Your task to perform on an android device: find which apps use the phone's location Image 0: 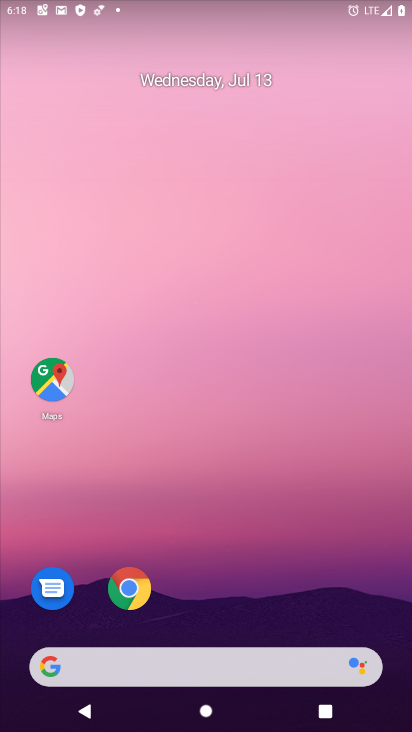
Step 0: drag from (199, 557) to (251, 26)
Your task to perform on an android device: find which apps use the phone's location Image 1: 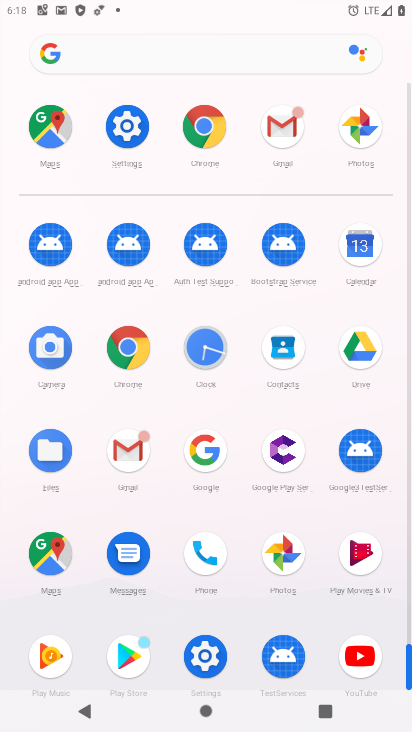
Step 1: click (127, 122)
Your task to perform on an android device: find which apps use the phone's location Image 2: 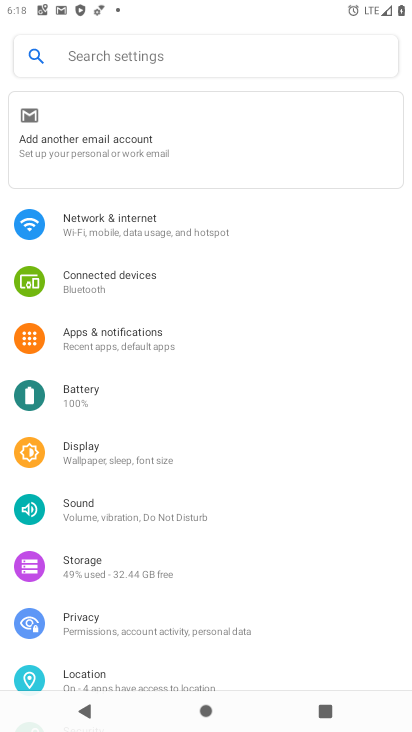
Step 2: click (80, 675)
Your task to perform on an android device: find which apps use the phone's location Image 3: 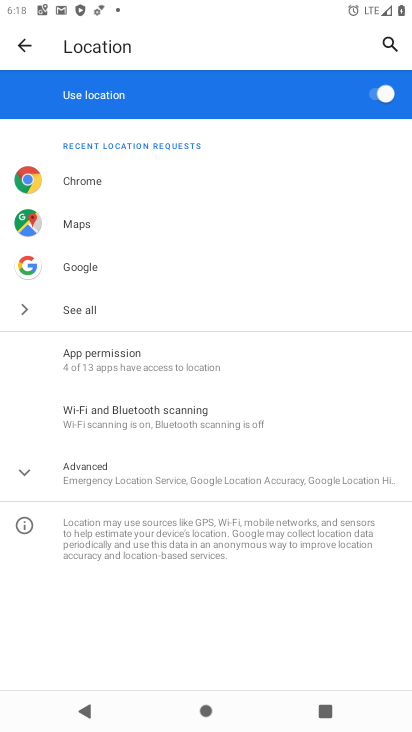
Step 3: click (128, 476)
Your task to perform on an android device: find which apps use the phone's location Image 4: 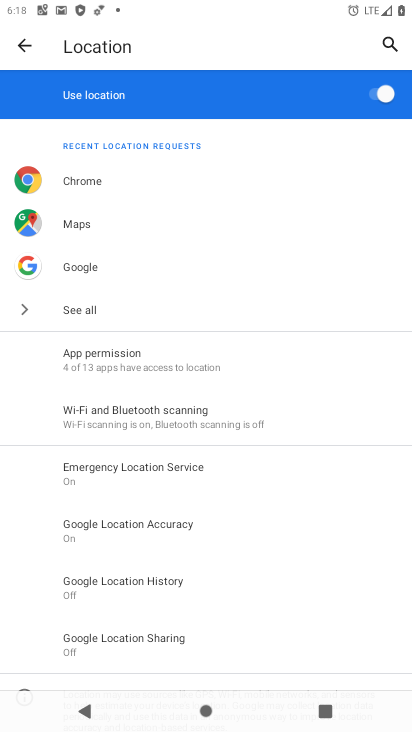
Step 4: click (155, 363)
Your task to perform on an android device: find which apps use the phone's location Image 5: 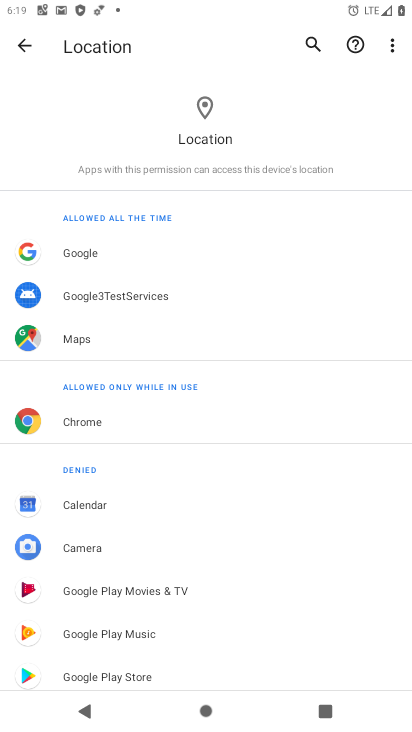
Step 5: task complete